Your task to perform on an android device: open a bookmark in the chrome app Image 0: 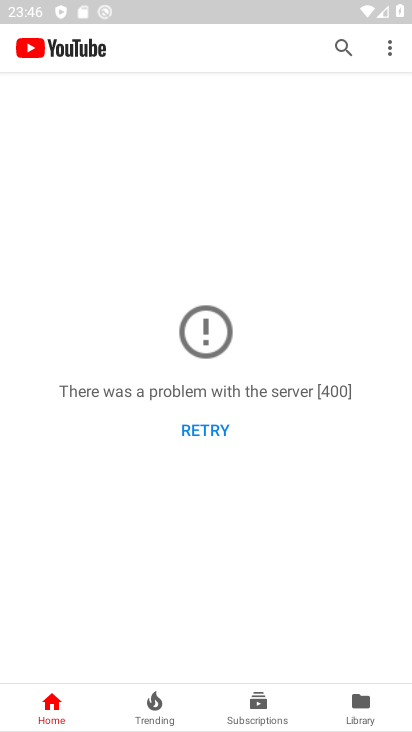
Step 0: press home button
Your task to perform on an android device: open a bookmark in the chrome app Image 1: 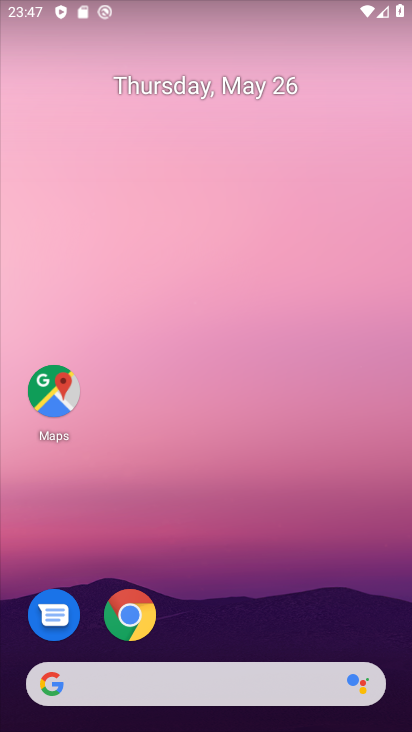
Step 1: drag from (325, 638) to (360, 166)
Your task to perform on an android device: open a bookmark in the chrome app Image 2: 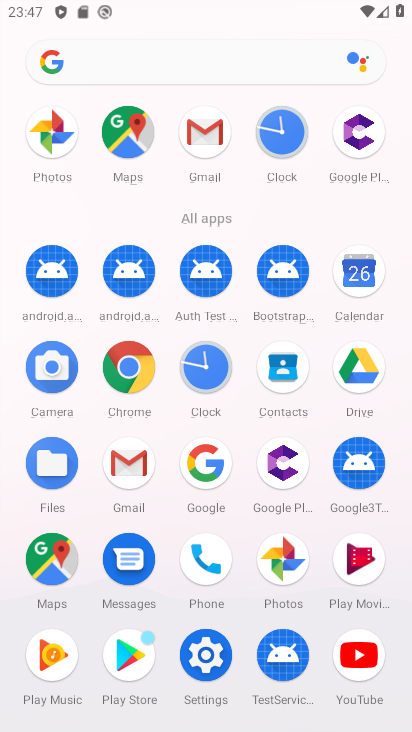
Step 2: click (137, 382)
Your task to perform on an android device: open a bookmark in the chrome app Image 3: 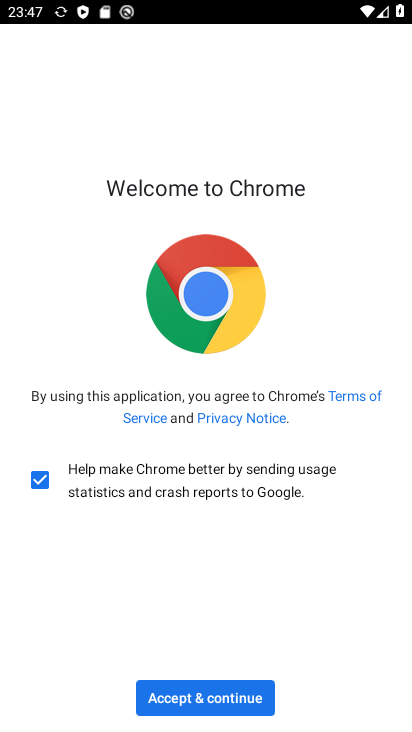
Step 3: click (182, 693)
Your task to perform on an android device: open a bookmark in the chrome app Image 4: 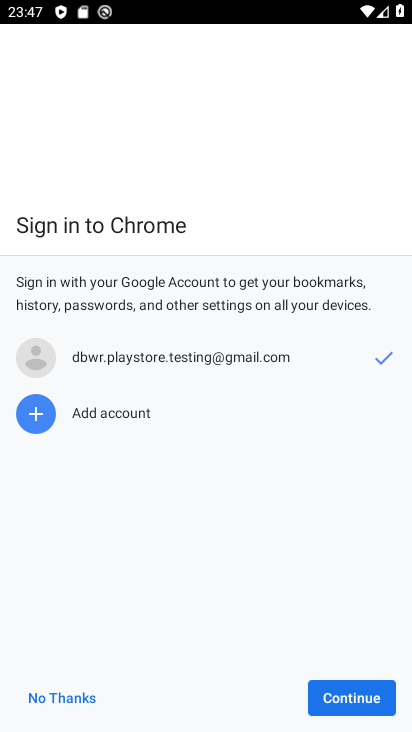
Step 4: click (342, 702)
Your task to perform on an android device: open a bookmark in the chrome app Image 5: 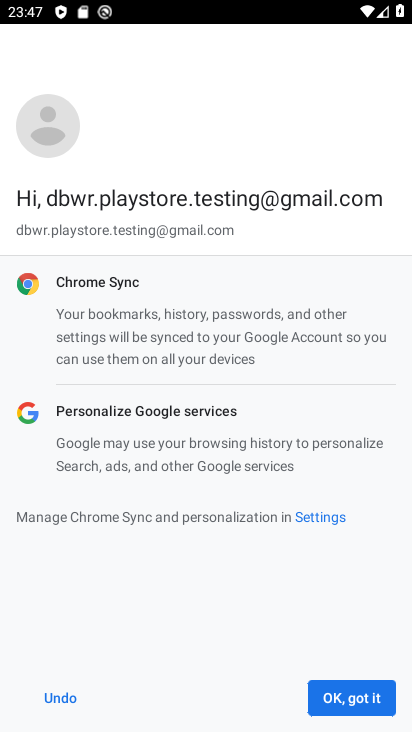
Step 5: click (342, 702)
Your task to perform on an android device: open a bookmark in the chrome app Image 6: 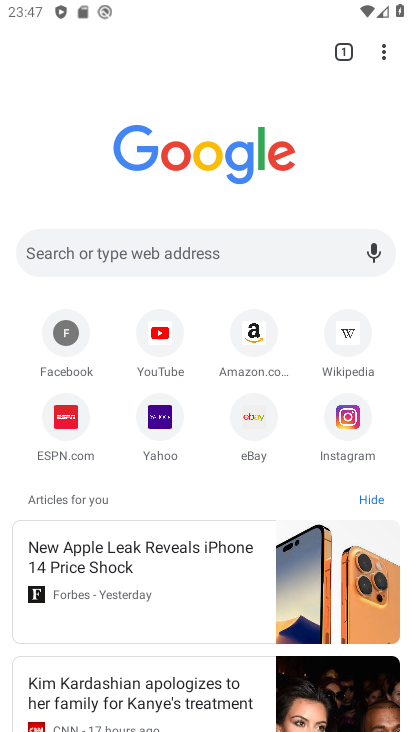
Step 6: click (382, 57)
Your task to perform on an android device: open a bookmark in the chrome app Image 7: 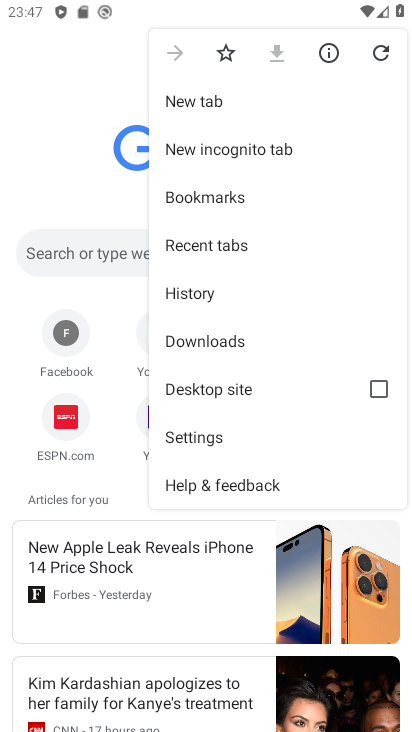
Step 7: click (241, 199)
Your task to perform on an android device: open a bookmark in the chrome app Image 8: 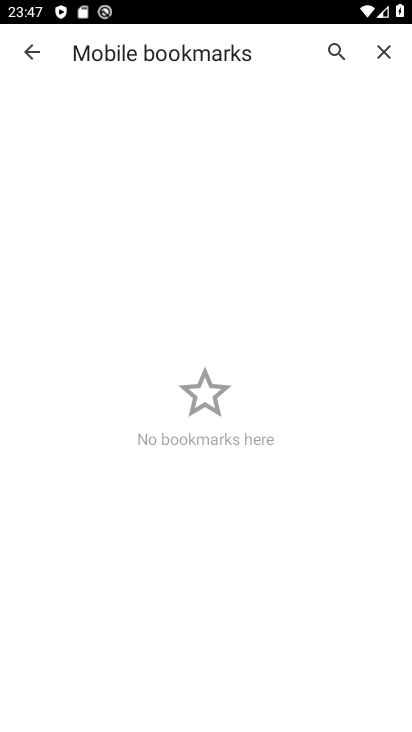
Step 8: task complete